Your task to perform on an android device: toggle translation in the chrome app Image 0: 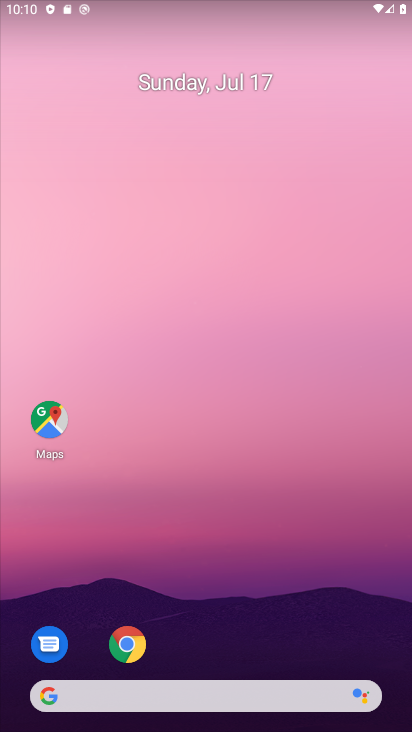
Step 0: drag from (282, 499) to (193, 42)
Your task to perform on an android device: toggle translation in the chrome app Image 1: 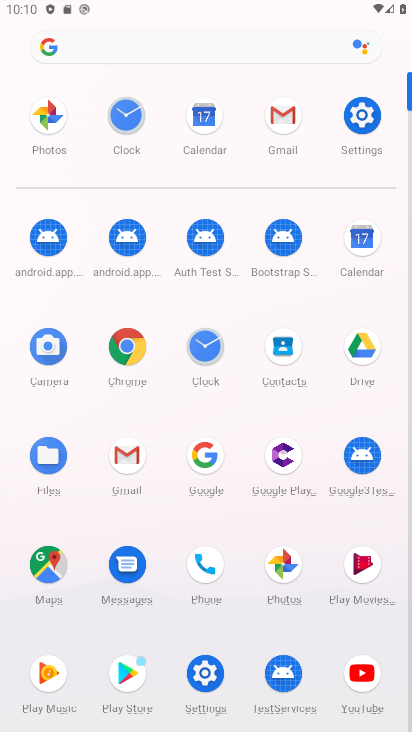
Step 1: click (121, 349)
Your task to perform on an android device: toggle translation in the chrome app Image 2: 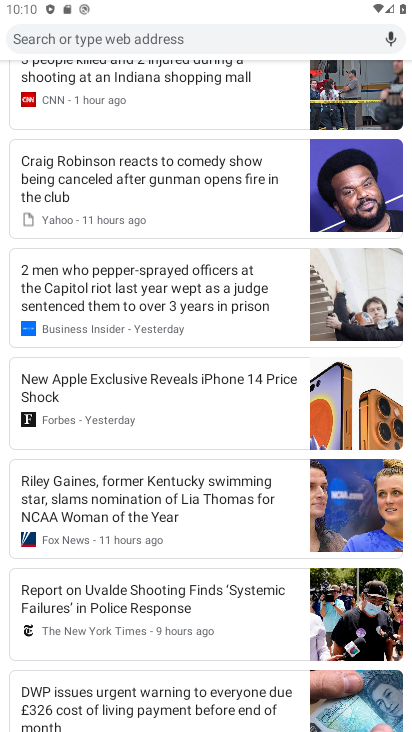
Step 2: drag from (119, 352) to (0, 311)
Your task to perform on an android device: toggle translation in the chrome app Image 3: 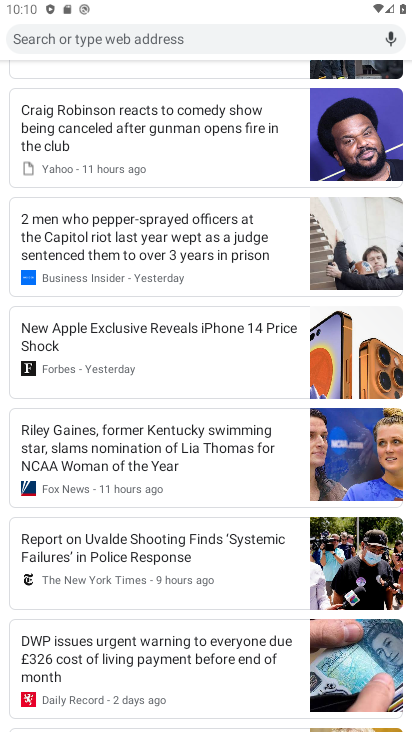
Step 3: drag from (282, 183) to (245, 648)
Your task to perform on an android device: toggle translation in the chrome app Image 4: 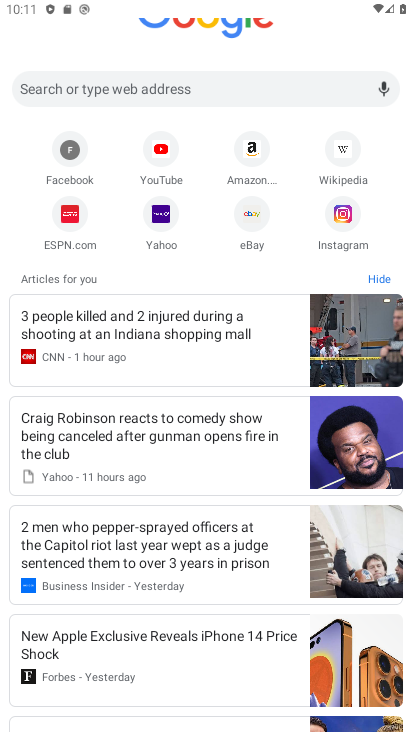
Step 4: drag from (302, 356) to (305, 617)
Your task to perform on an android device: toggle translation in the chrome app Image 5: 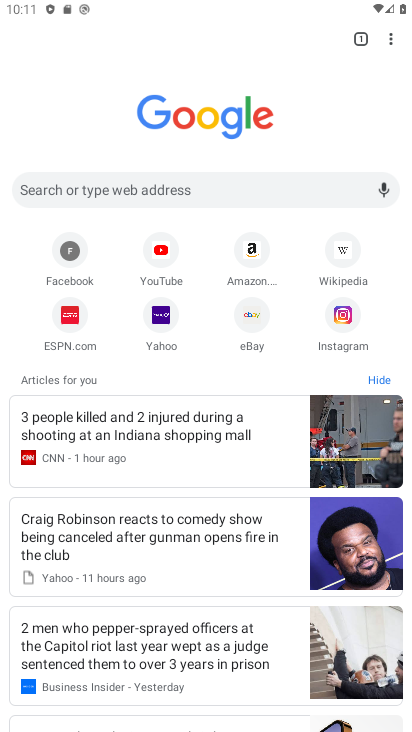
Step 5: drag from (388, 38) to (247, 328)
Your task to perform on an android device: toggle translation in the chrome app Image 6: 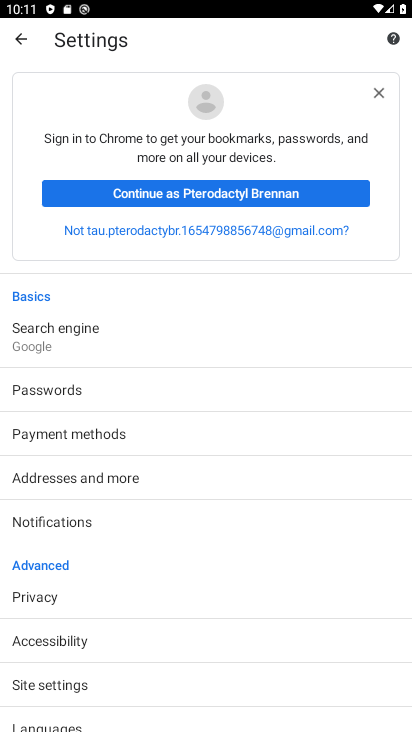
Step 6: drag from (192, 672) to (215, 137)
Your task to perform on an android device: toggle translation in the chrome app Image 7: 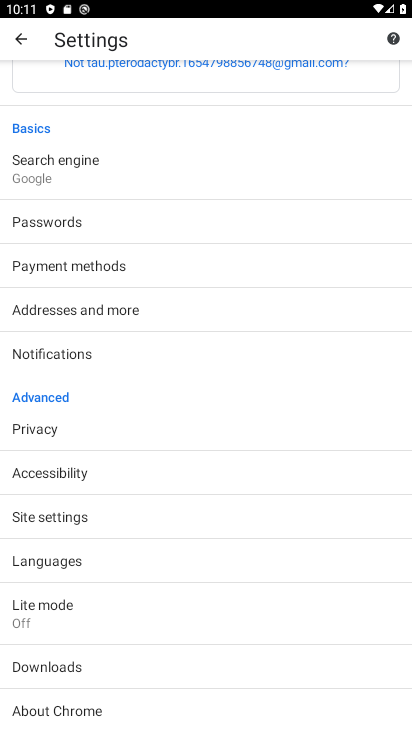
Step 7: click (52, 562)
Your task to perform on an android device: toggle translation in the chrome app Image 8: 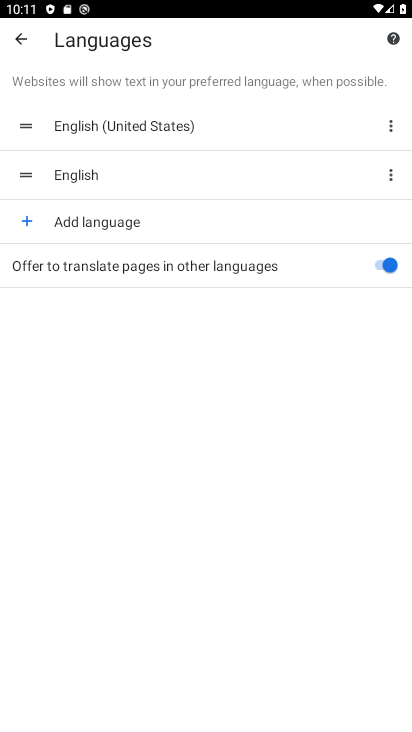
Step 8: click (392, 270)
Your task to perform on an android device: toggle translation in the chrome app Image 9: 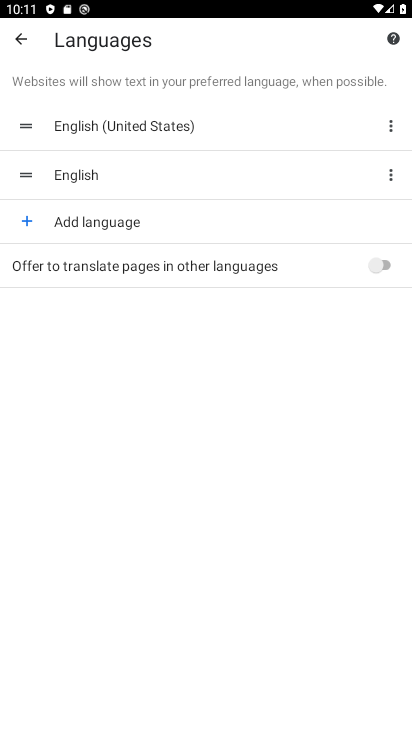
Step 9: task complete